Your task to perform on an android device: change notification settings in the gmail app Image 0: 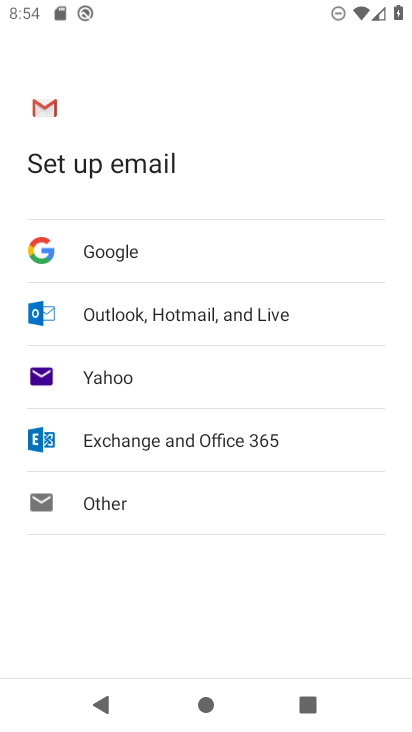
Step 0: press home button
Your task to perform on an android device: change notification settings in the gmail app Image 1: 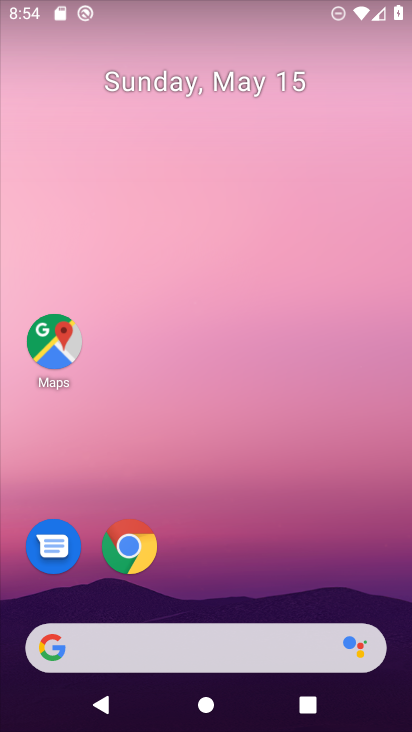
Step 1: drag from (254, 560) to (294, 146)
Your task to perform on an android device: change notification settings in the gmail app Image 2: 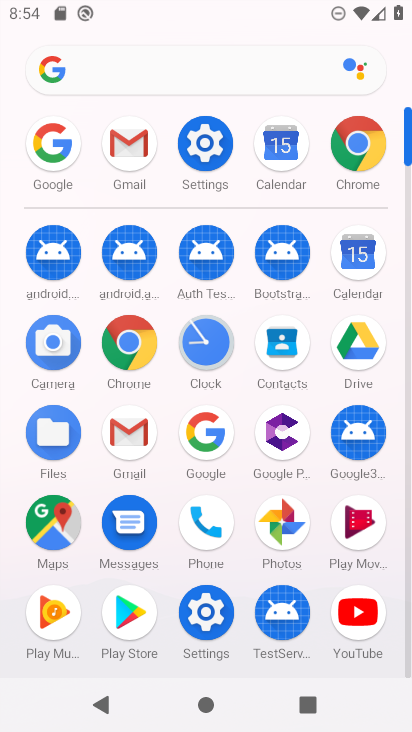
Step 2: click (151, 146)
Your task to perform on an android device: change notification settings in the gmail app Image 3: 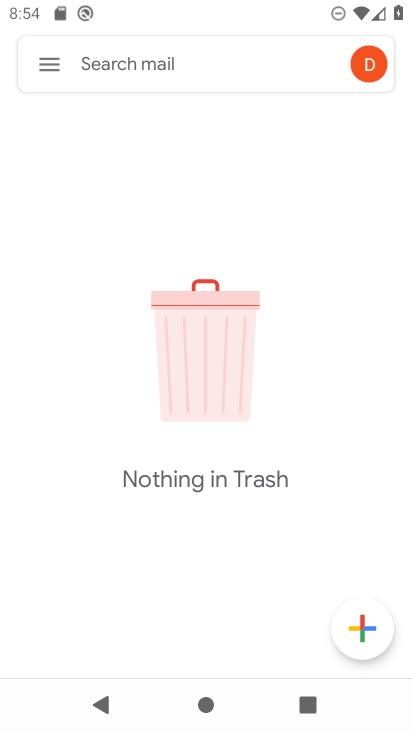
Step 3: click (55, 65)
Your task to perform on an android device: change notification settings in the gmail app Image 4: 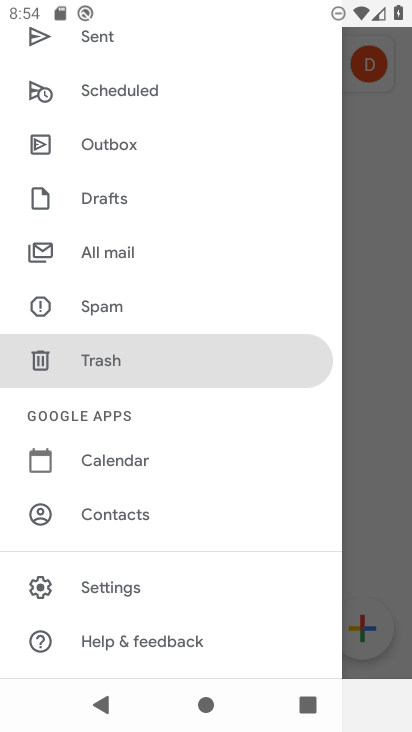
Step 4: click (112, 584)
Your task to perform on an android device: change notification settings in the gmail app Image 5: 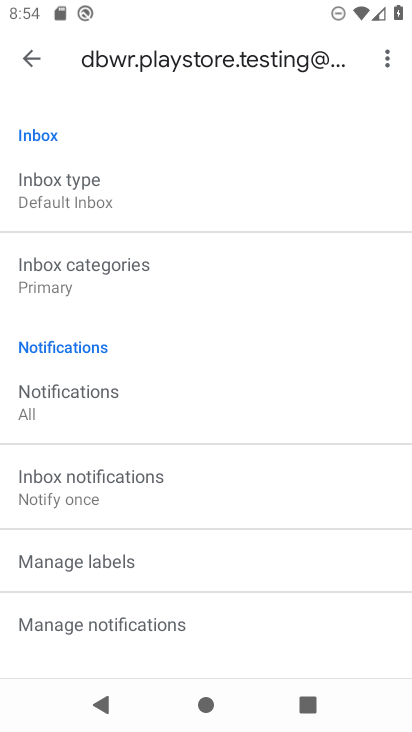
Step 5: drag from (220, 522) to (283, 305)
Your task to perform on an android device: change notification settings in the gmail app Image 6: 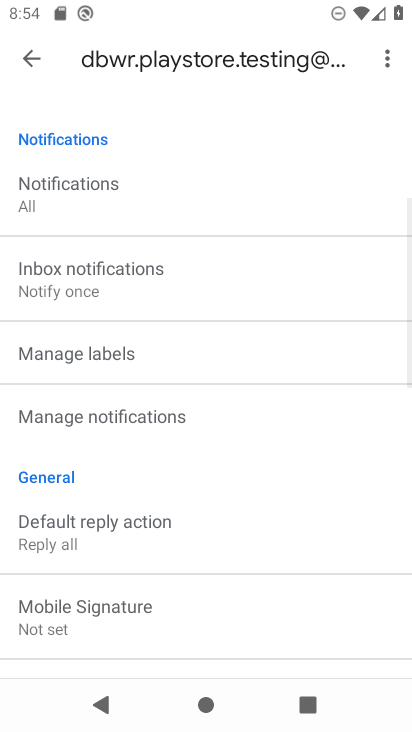
Step 6: click (193, 421)
Your task to perform on an android device: change notification settings in the gmail app Image 7: 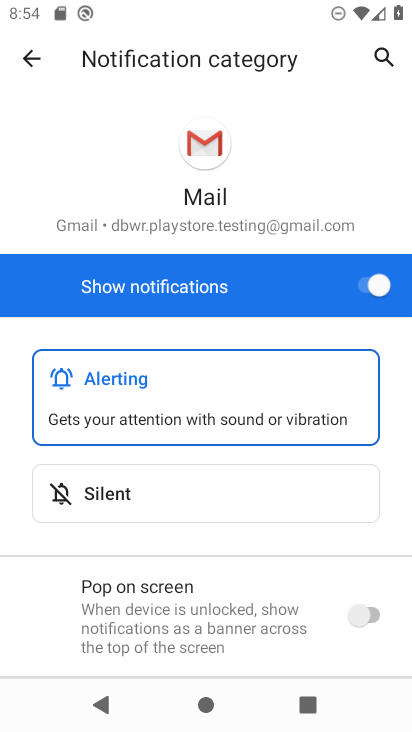
Step 7: click (373, 285)
Your task to perform on an android device: change notification settings in the gmail app Image 8: 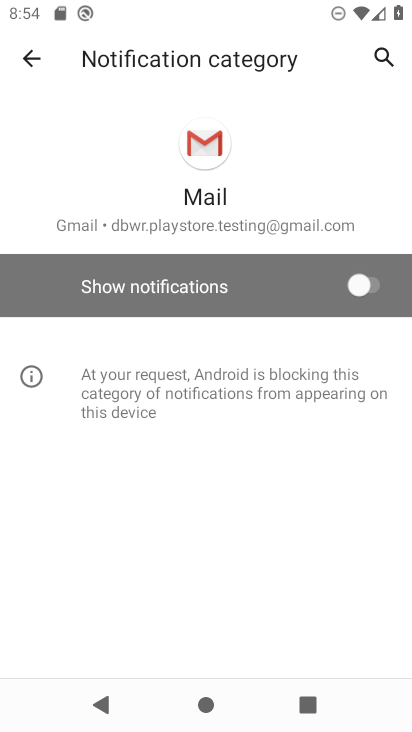
Step 8: task complete